Your task to perform on an android device: turn off wifi Image 0: 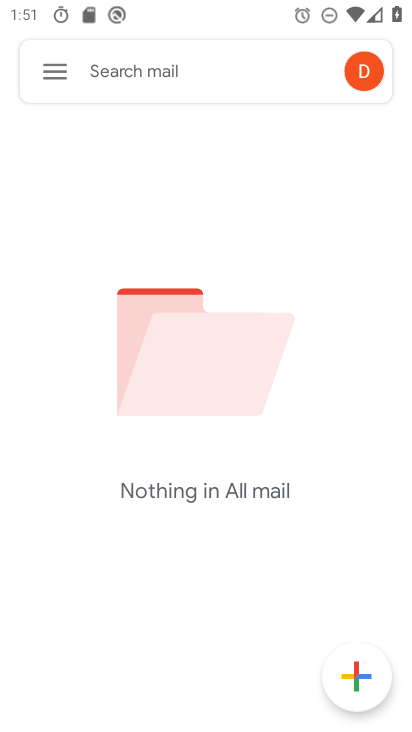
Step 0: press home button
Your task to perform on an android device: turn off wifi Image 1: 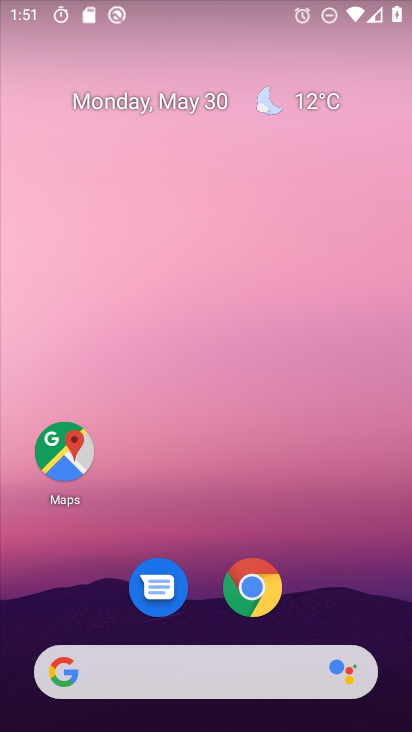
Step 1: drag from (379, 488) to (279, 94)
Your task to perform on an android device: turn off wifi Image 2: 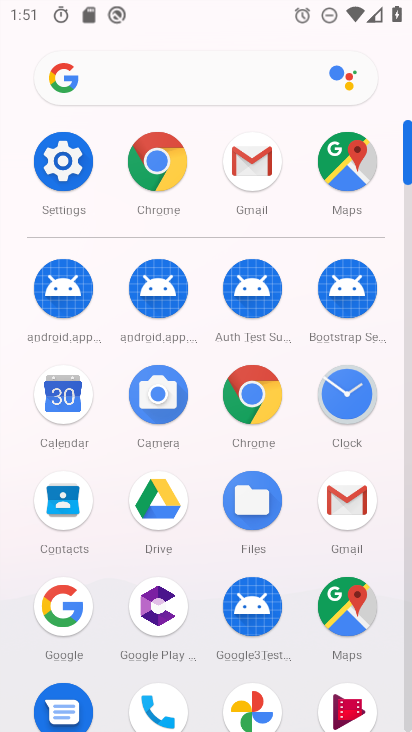
Step 2: click (54, 157)
Your task to perform on an android device: turn off wifi Image 3: 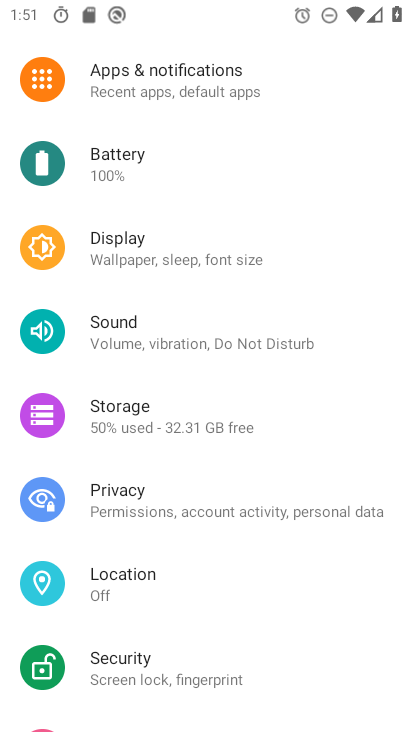
Step 3: drag from (261, 151) to (214, 602)
Your task to perform on an android device: turn off wifi Image 4: 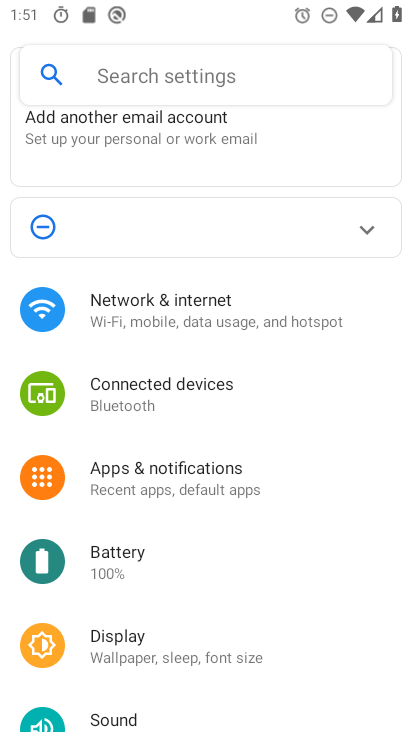
Step 4: click (175, 313)
Your task to perform on an android device: turn off wifi Image 5: 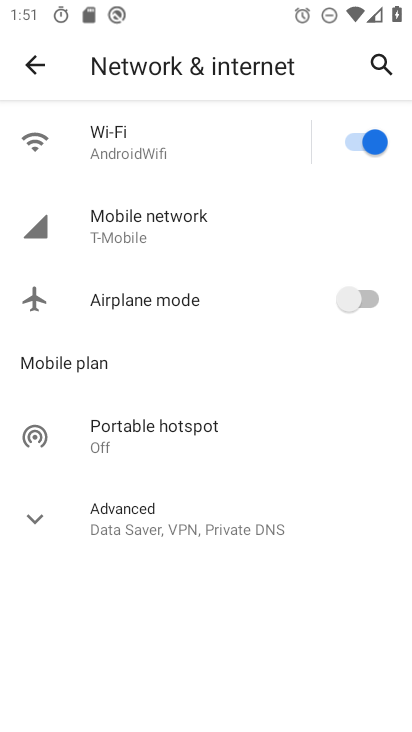
Step 5: click (362, 143)
Your task to perform on an android device: turn off wifi Image 6: 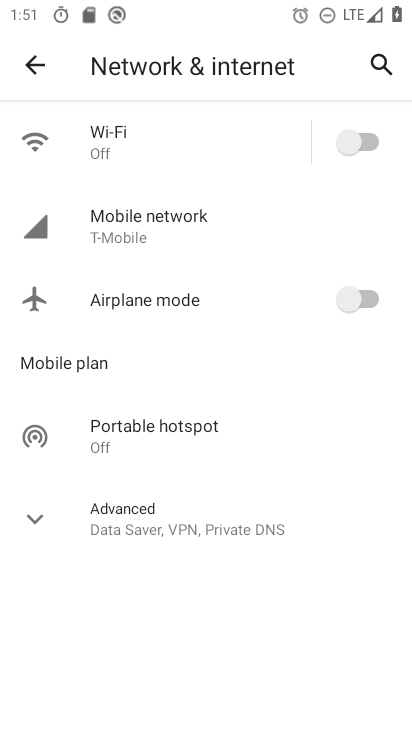
Step 6: task complete